Your task to perform on an android device: Go to calendar. Show me events next week Image 0: 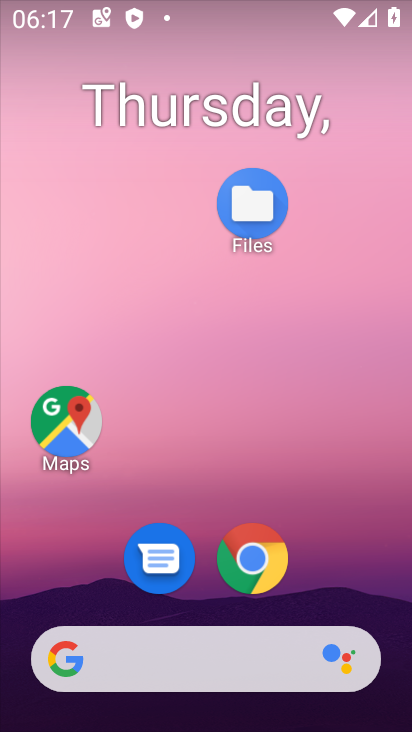
Step 0: drag from (317, 587) to (226, 177)
Your task to perform on an android device: Go to calendar. Show me events next week Image 1: 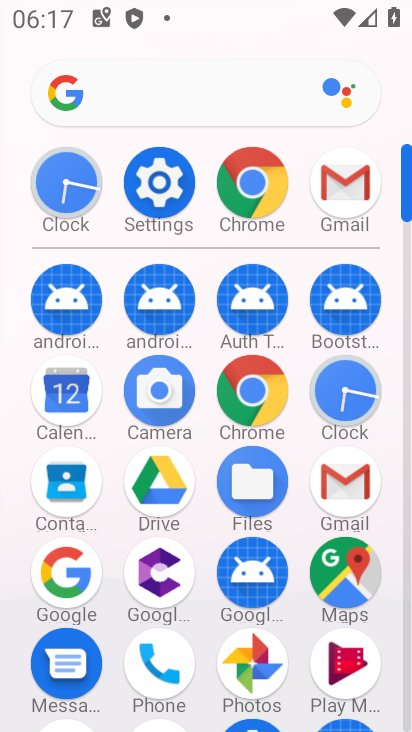
Step 1: click (68, 432)
Your task to perform on an android device: Go to calendar. Show me events next week Image 2: 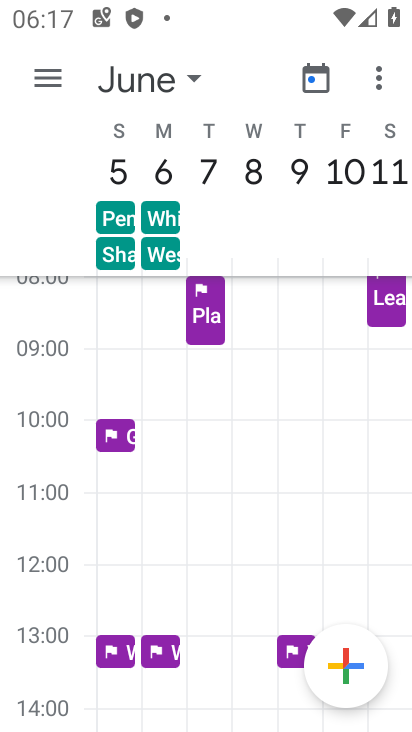
Step 2: click (125, 78)
Your task to perform on an android device: Go to calendar. Show me events next week Image 3: 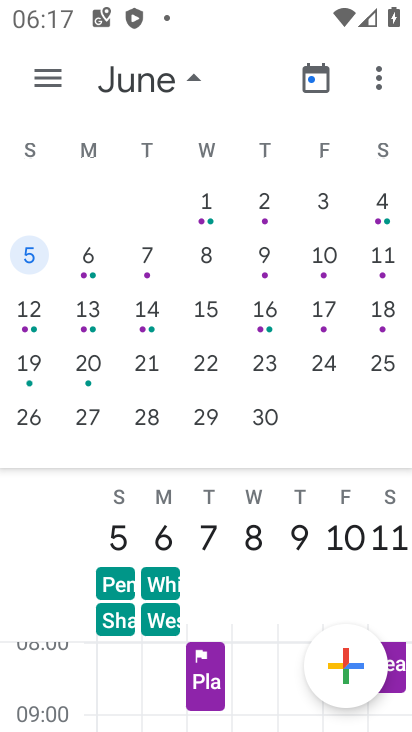
Step 3: drag from (164, 379) to (368, 386)
Your task to perform on an android device: Go to calendar. Show me events next week Image 4: 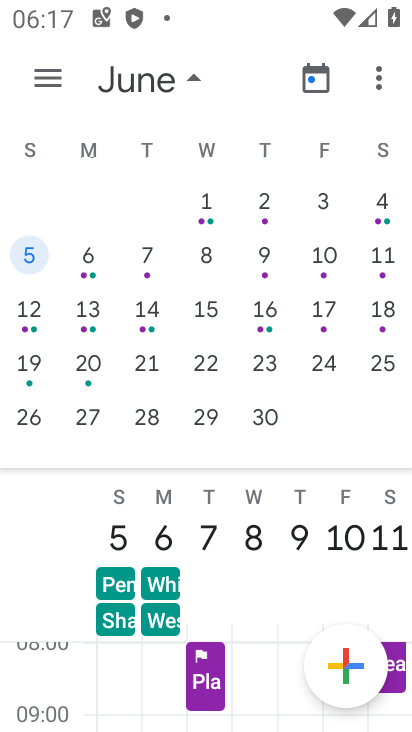
Step 4: drag from (84, 331) to (376, 343)
Your task to perform on an android device: Go to calendar. Show me events next week Image 5: 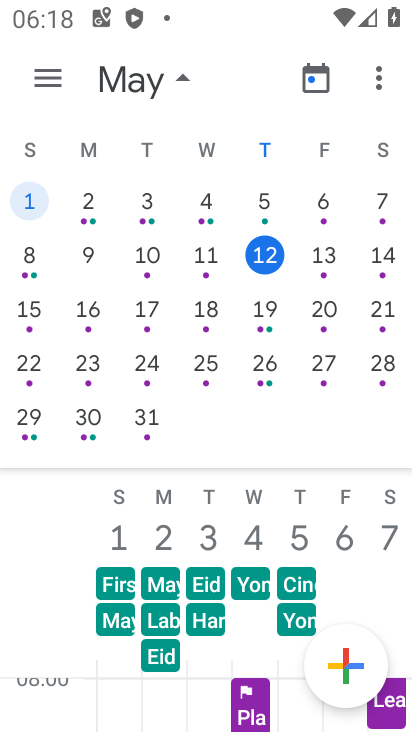
Step 5: click (22, 316)
Your task to perform on an android device: Go to calendar. Show me events next week Image 6: 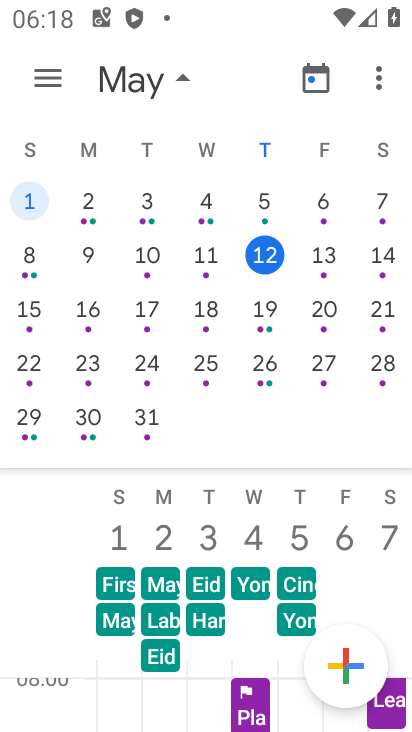
Step 6: click (25, 316)
Your task to perform on an android device: Go to calendar. Show me events next week Image 7: 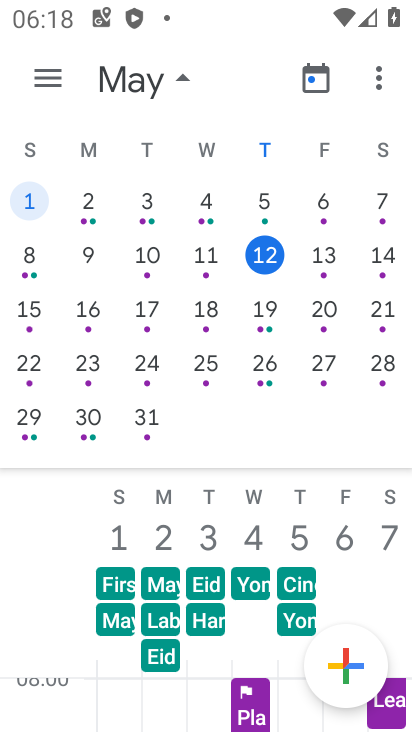
Step 7: click (34, 315)
Your task to perform on an android device: Go to calendar. Show me events next week Image 8: 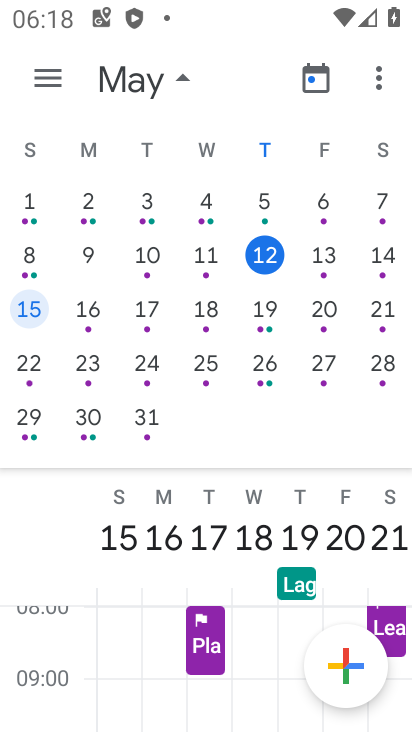
Step 8: task complete